Your task to perform on an android device: open device folders in google photos Image 0: 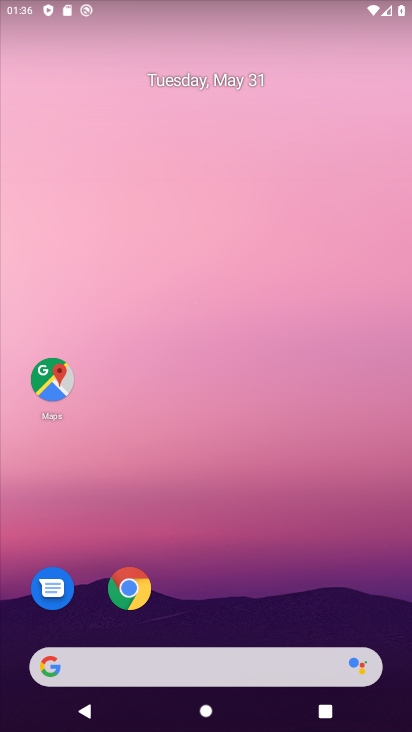
Step 0: drag from (327, 601) to (366, 255)
Your task to perform on an android device: open device folders in google photos Image 1: 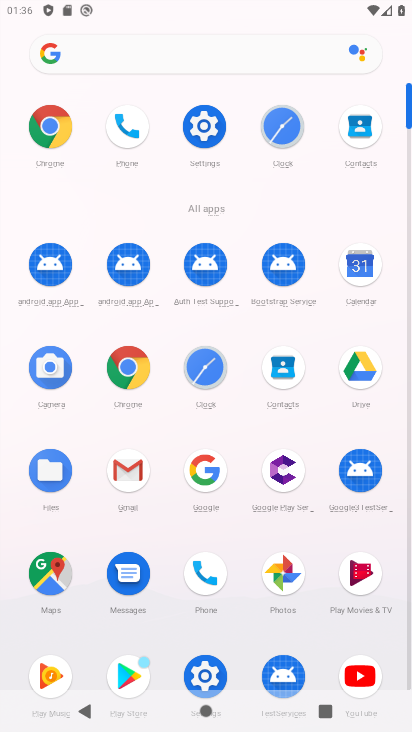
Step 1: click (288, 588)
Your task to perform on an android device: open device folders in google photos Image 2: 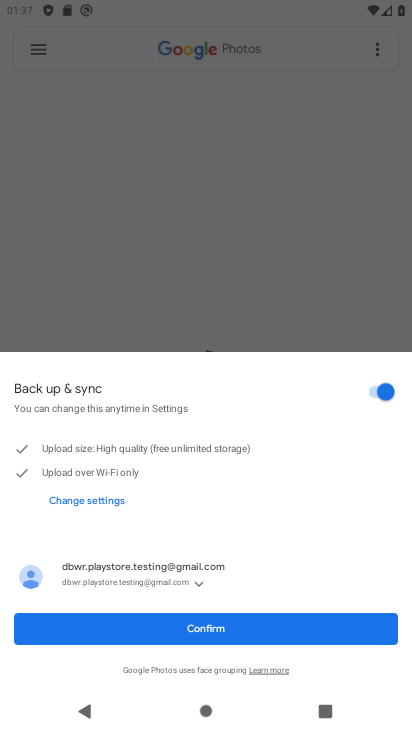
Step 2: click (281, 630)
Your task to perform on an android device: open device folders in google photos Image 3: 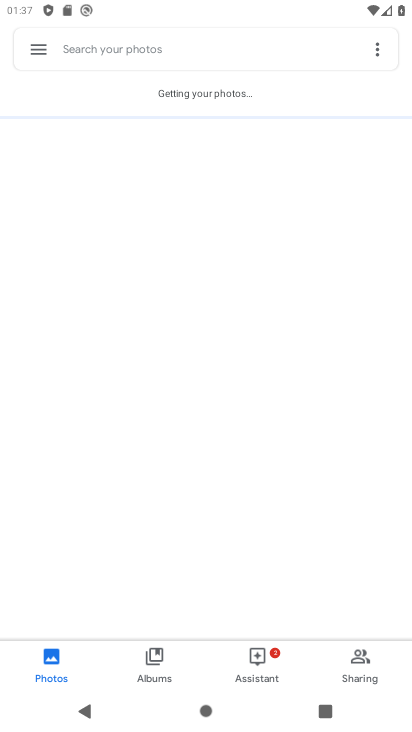
Step 3: click (29, 51)
Your task to perform on an android device: open device folders in google photos Image 4: 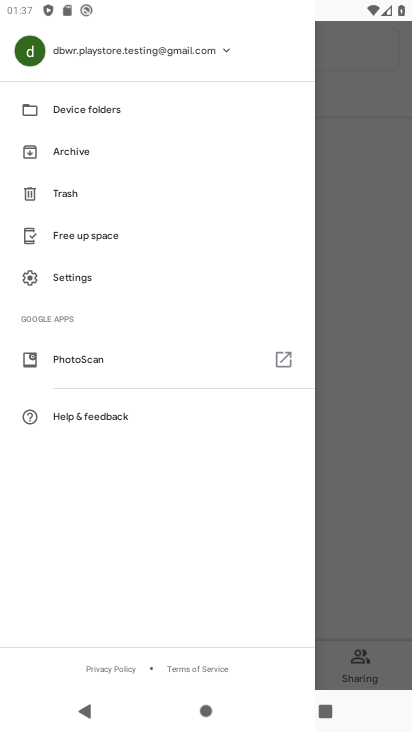
Step 4: click (140, 112)
Your task to perform on an android device: open device folders in google photos Image 5: 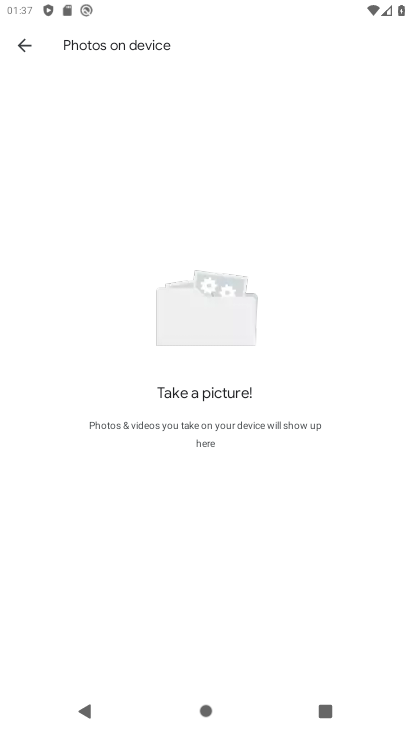
Step 5: task complete